Your task to perform on an android device: Check the news Image 0: 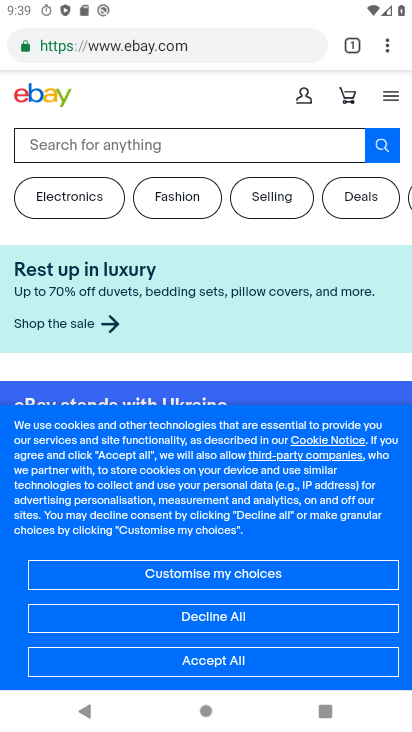
Step 0: press back button
Your task to perform on an android device: Check the news Image 1: 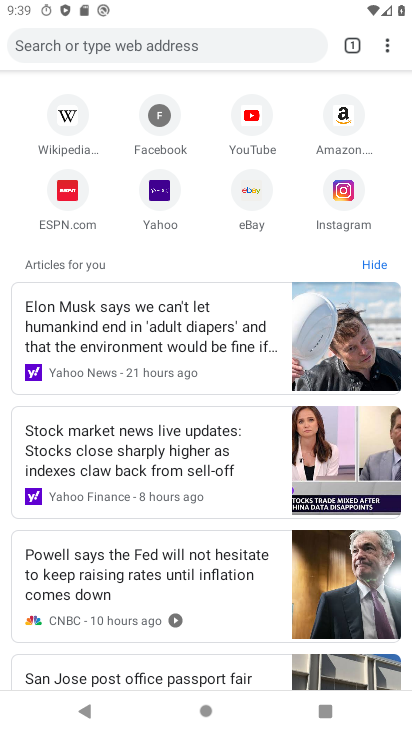
Step 1: task complete